Your task to perform on an android device: What is the news today? Image 0: 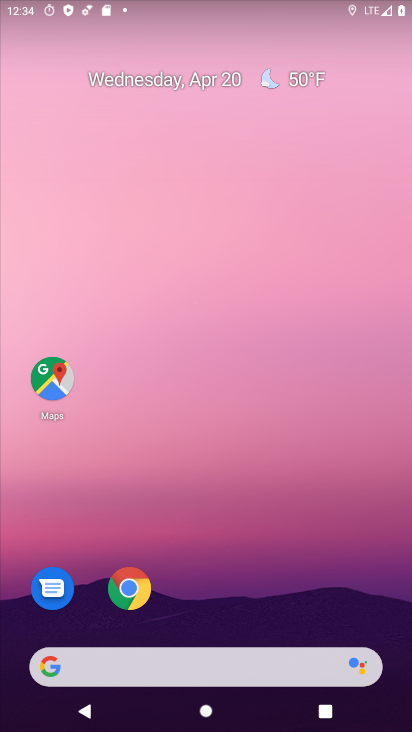
Step 0: drag from (9, 184) to (382, 210)
Your task to perform on an android device: What is the news today? Image 1: 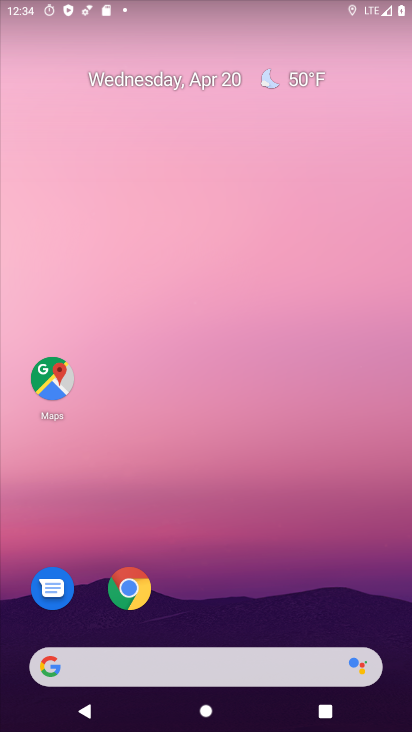
Step 1: task complete